Your task to perform on an android device: open app "Life360: Find Family & Friends" (install if not already installed) and go to login screen Image 0: 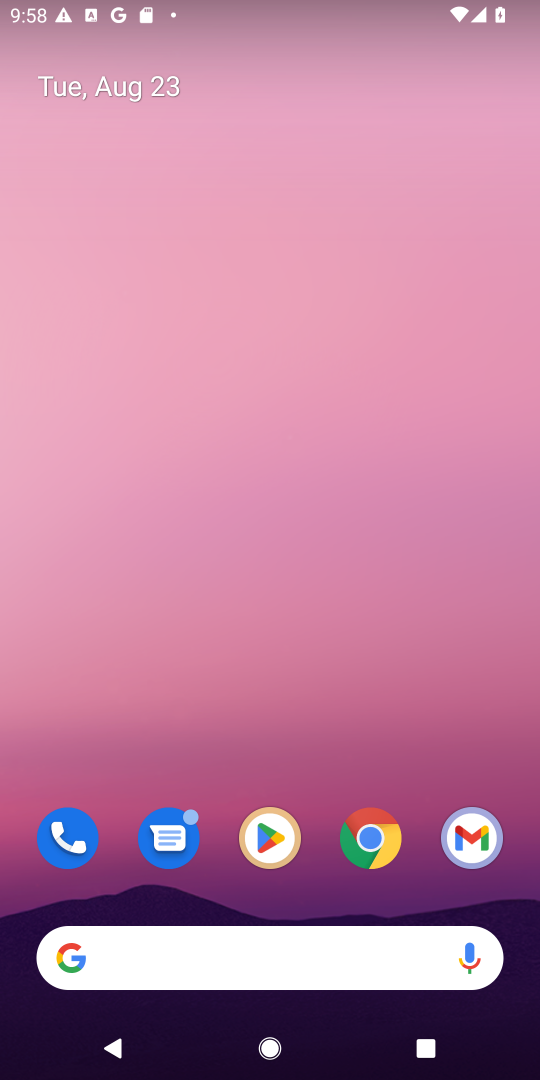
Step 0: click (292, 831)
Your task to perform on an android device: open app "Life360: Find Family & Friends" (install if not already installed) and go to login screen Image 1: 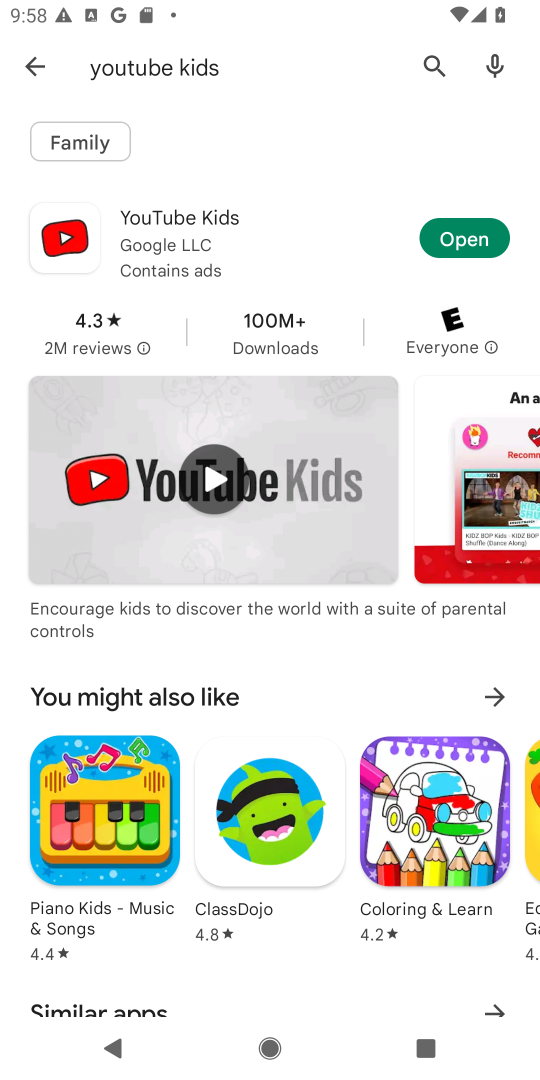
Step 1: click (469, 62)
Your task to perform on an android device: open app "Life360: Find Family & Friends" (install if not already installed) and go to login screen Image 2: 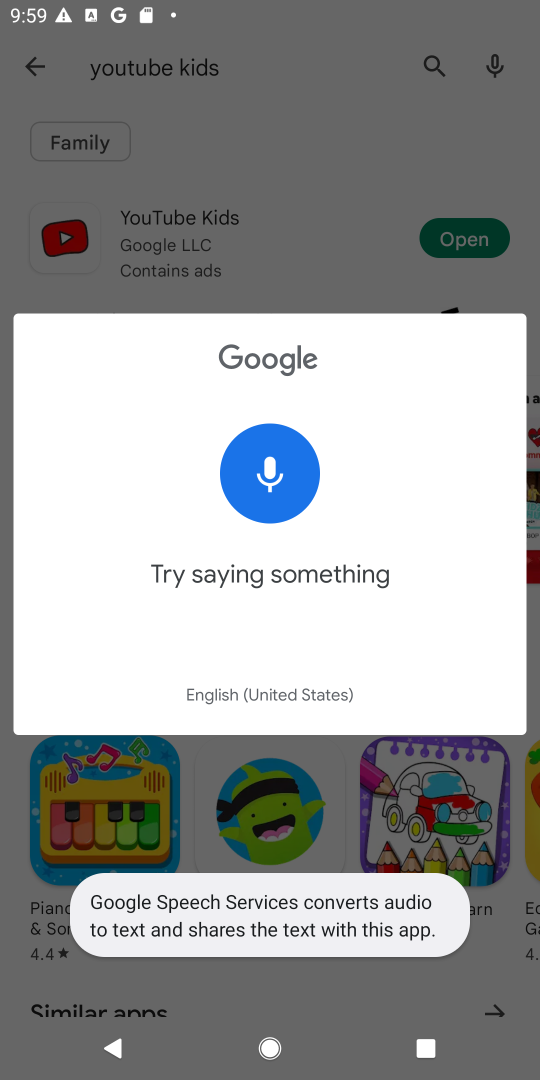
Step 2: click (403, 192)
Your task to perform on an android device: open app "Life360: Find Family & Friends" (install if not already installed) and go to login screen Image 3: 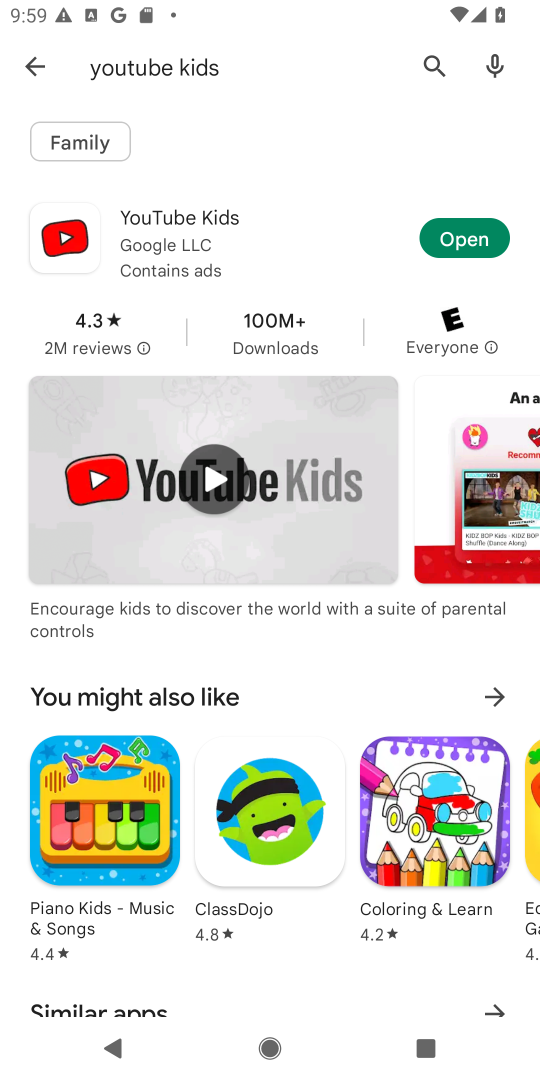
Step 3: click (430, 66)
Your task to perform on an android device: open app "Life360: Find Family & Friends" (install if not already installed) and go to login screen Image 4: 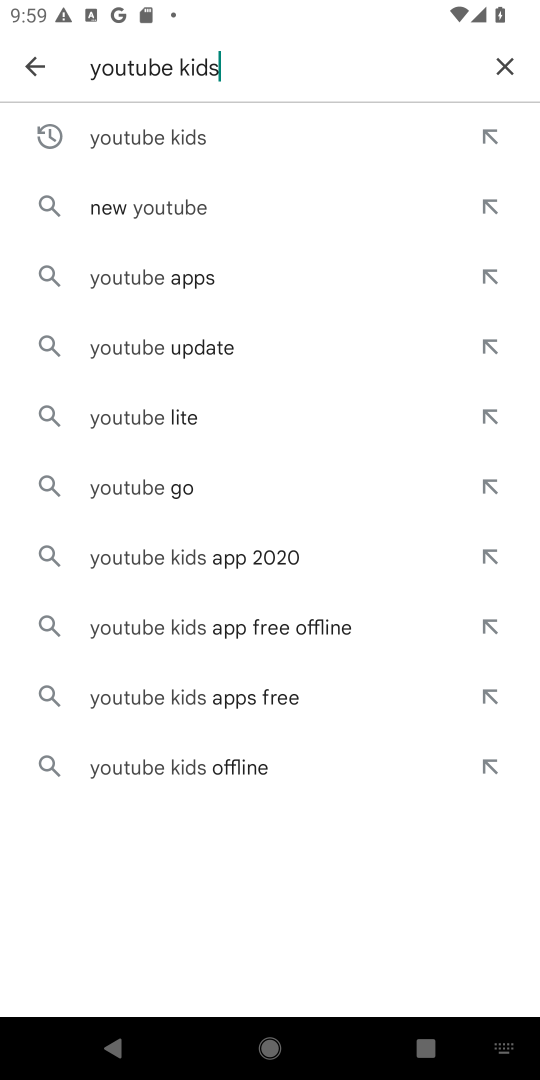
Step 4: click (508, 64)
Your task to perform on an android device: open app "Life360: Find Family & Friends" (install if not already installed) and go to login screen Image 5: 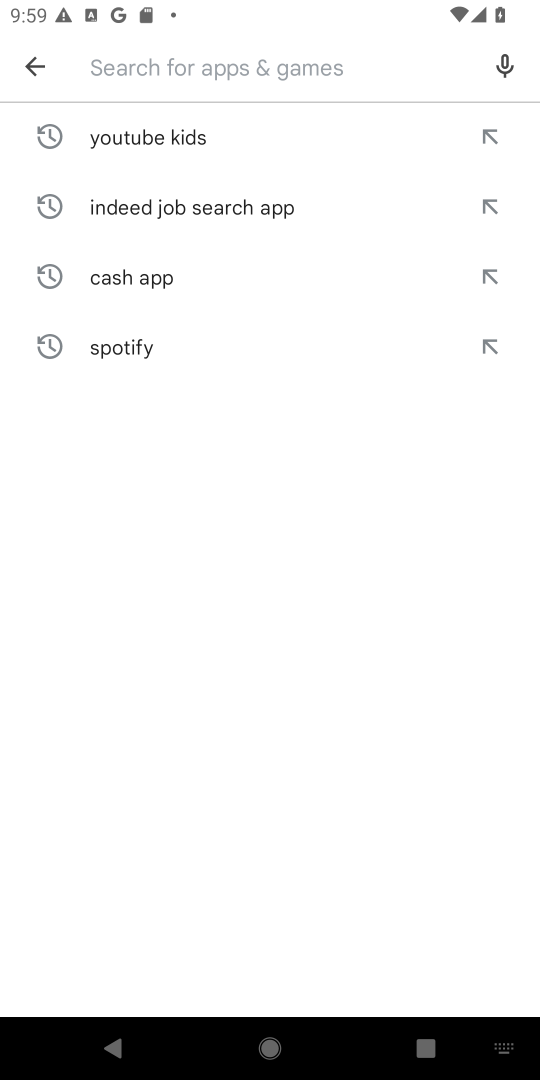
Step 5: type "Life360: Find Family & Friends"
Your task to perform on an android device: open app "Life360: Find Family & Friends" (install if not already installed) and go to login screen Image 6: 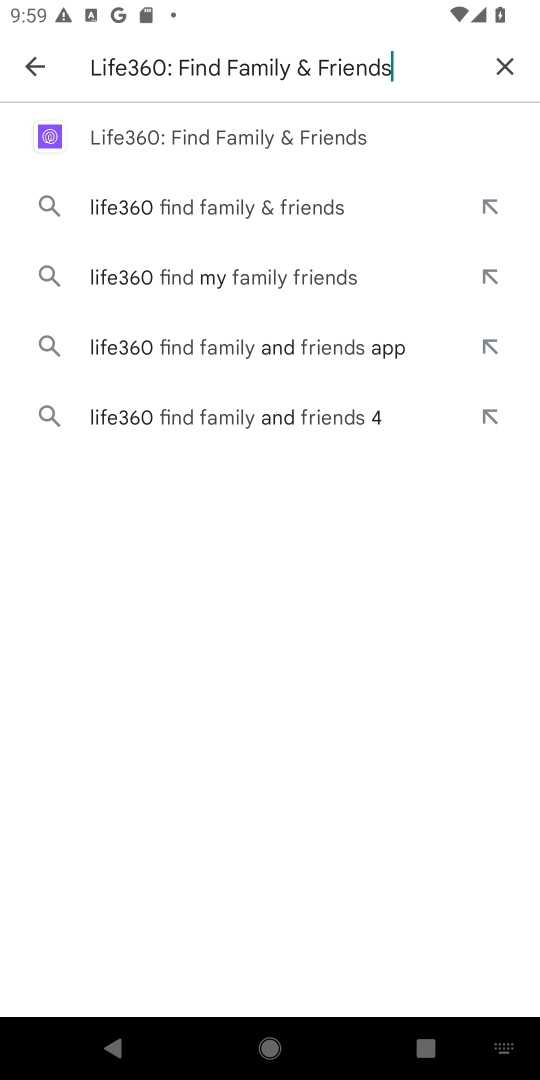
Step 6: click (211, 148)
Your task to perform on an android device: open app "Life360: Find Family & Friends" (install if not already installed) and go to login screen Image 7: 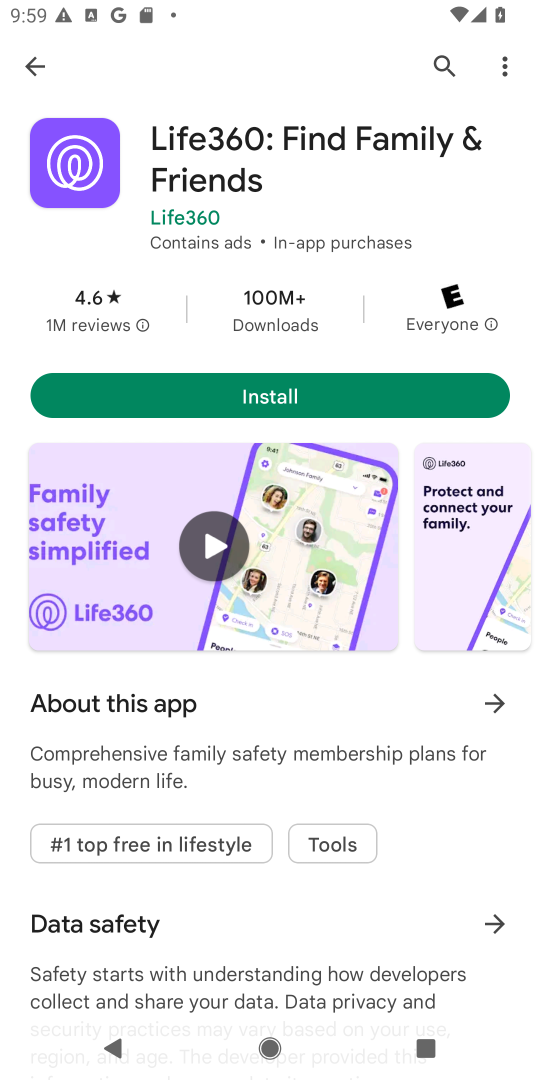
Step 7: click (275, 387)
Your task to perform on an android device: open app "Life360: Find Family & Friends" (install if not already installed) and go to login screen Image 8: 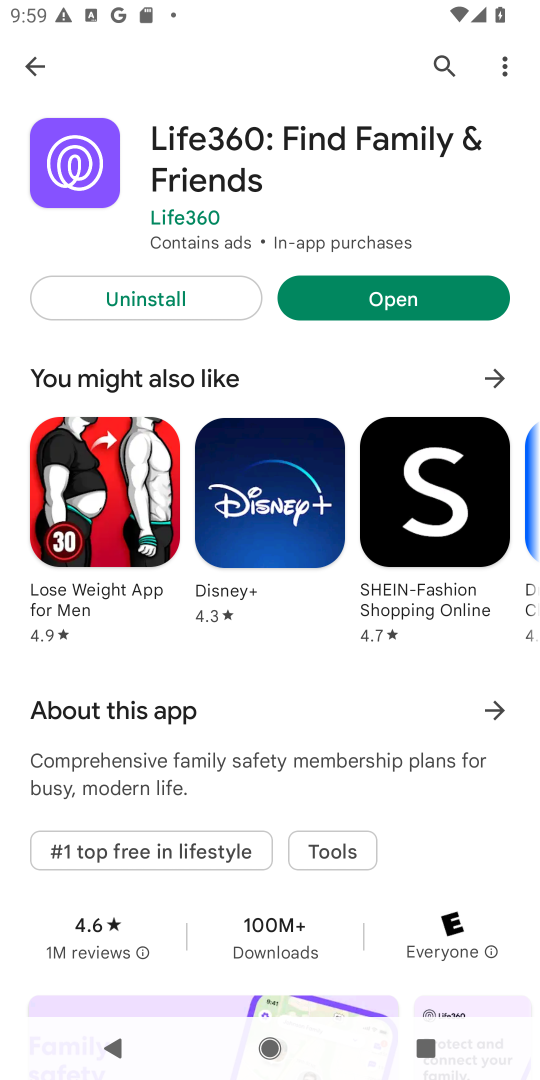
Step 8: click (421, 305)
Your task to perform on an android device: open app "Life360: Find Family & Friends" (install if not already installed) and go to login screen Image 9: 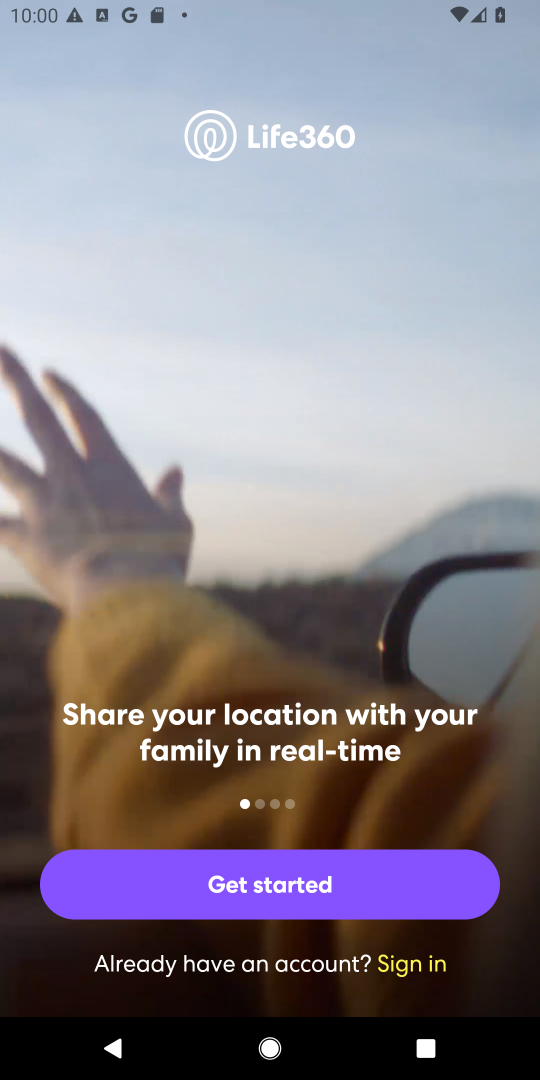
Step 9: task complete